Your task to perform on an android device: change timer sound Image 0: 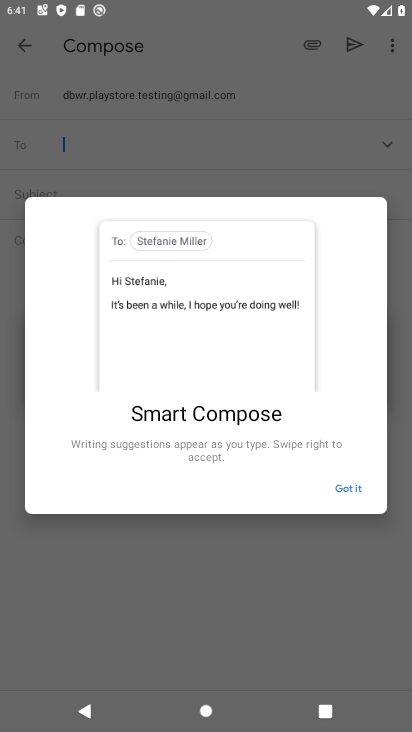
Step 0: press home button
Your task to perform on an android device: change timer sound Image 1: 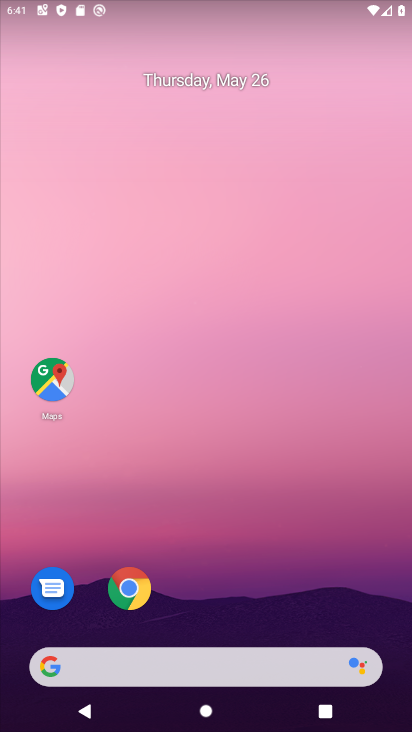
Step 1: drag from (404, 627) to (235, 57)
Your task to perform on an android device: change timer sound Image 2: 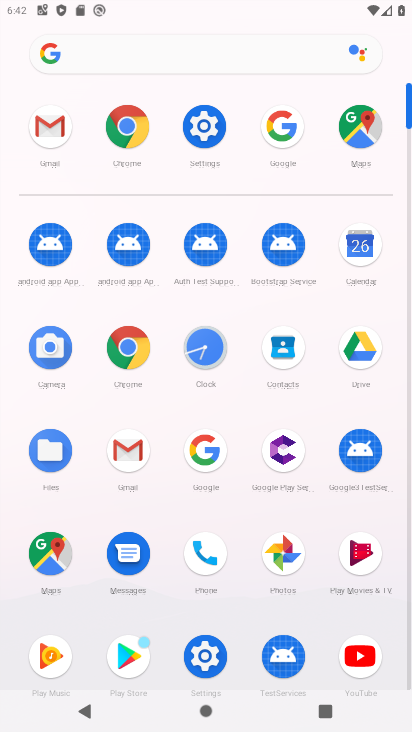
Step 2: click (209, 333)
Your task to perform on an android device: change timer sound Image 3: 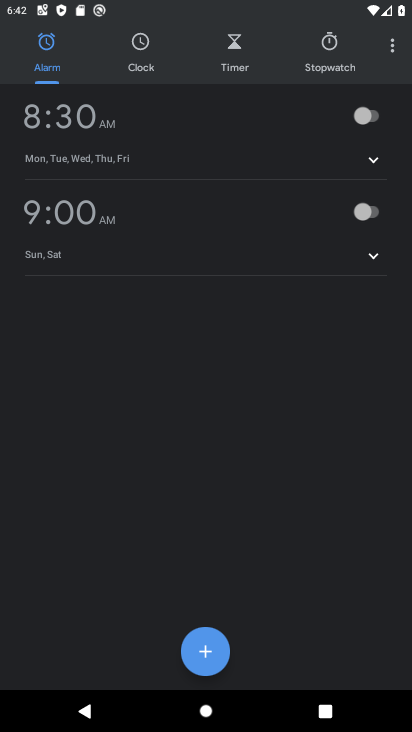
Step 3: click (390, 42)
Your task to perform on an android device: change timer sound Image 4: 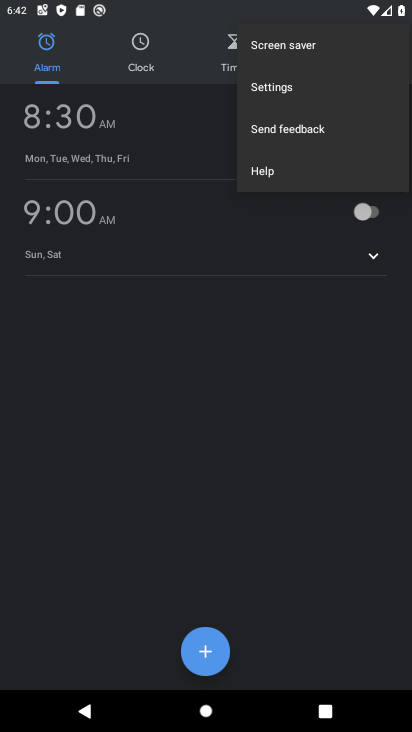
Step 4: click (286, 97)
Your task to perform on an android device: change timer sound Image 5: 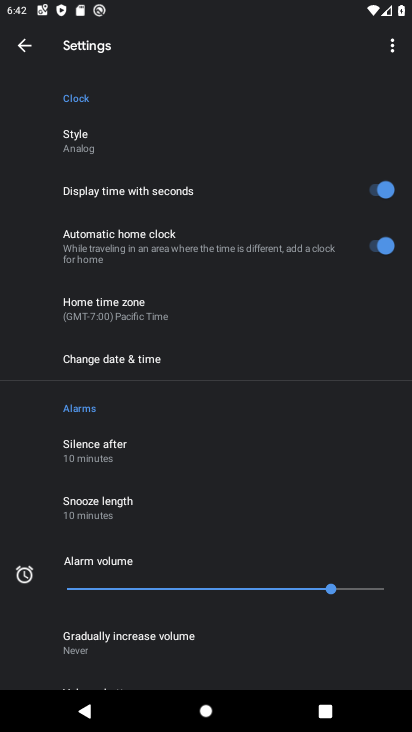
Step 5: drag from (109, 608) to (138, 174)
Your task to perform on an android device: change timer sound Image 6: 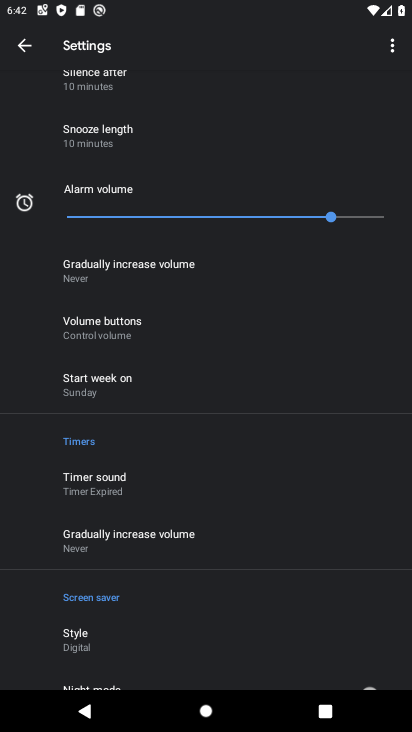
Step 6: click (125, 480)
Your task to perform on an android device: change timer sound Image 7: 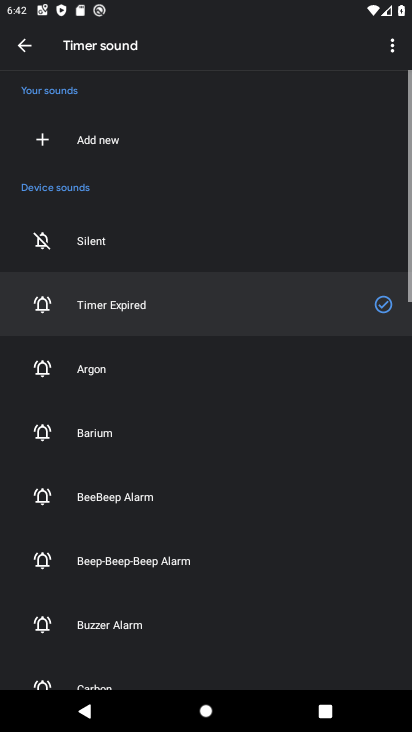
Step 7: click (125, 480)
Your task to perform on an android device: change timer sound Image 8: 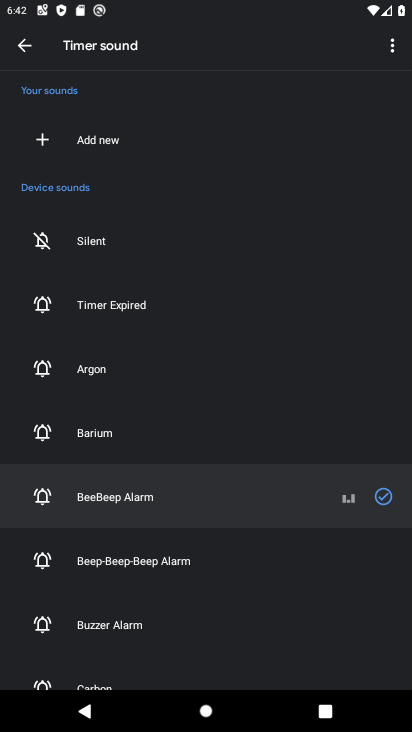
Step 8: task complete